Your task to perform on an android device: turn vacation reply on in the gmail app Image 0: 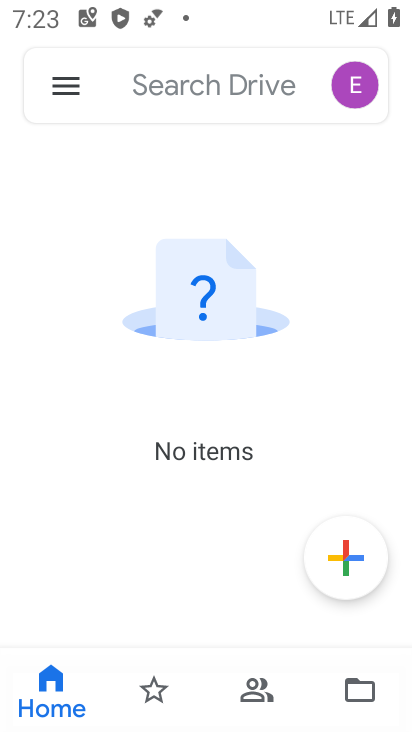
Step 0: press back button
Your task to perform on an android device: turn vacation reply on in the gmail app Image 1: 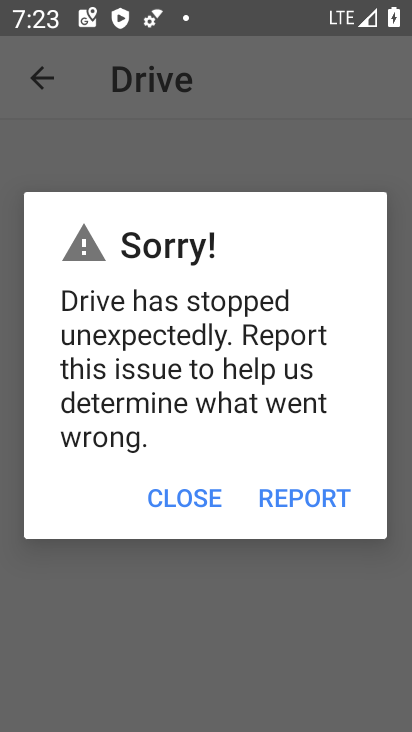
Step 1: click (188, 498)
Your task to perform on an android device: turn vacation reply on in the gmail app Image 2: 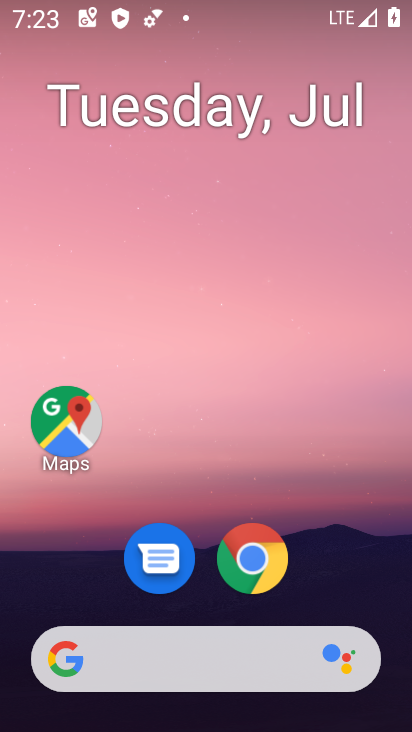
Step 2: drag from (157, 636) to (200, 20)
Your task to perform on an android device: turn vacation reply on in the gmail app Image 3: 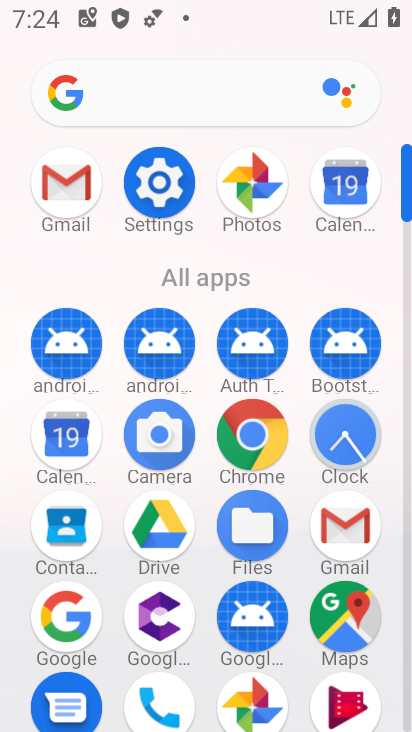
Step 3: click (41, 195)
Your task to perform on an android device: turn vacation reply on in the gmail app Image 4: 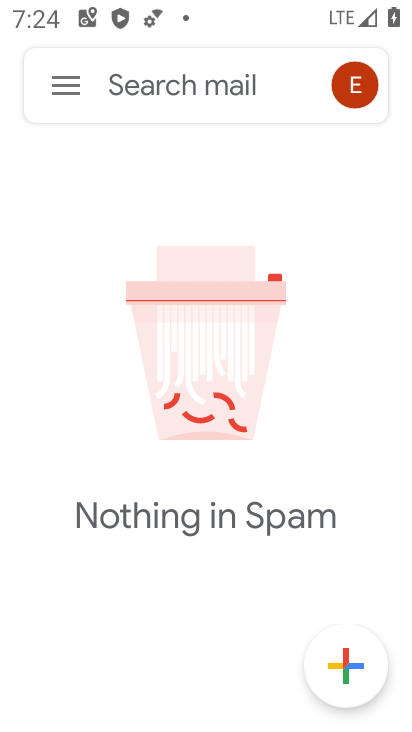
Step 4: click (57, 86)
Your task to perform on an android device: turn vacation reply on in the gmail app Image 5: 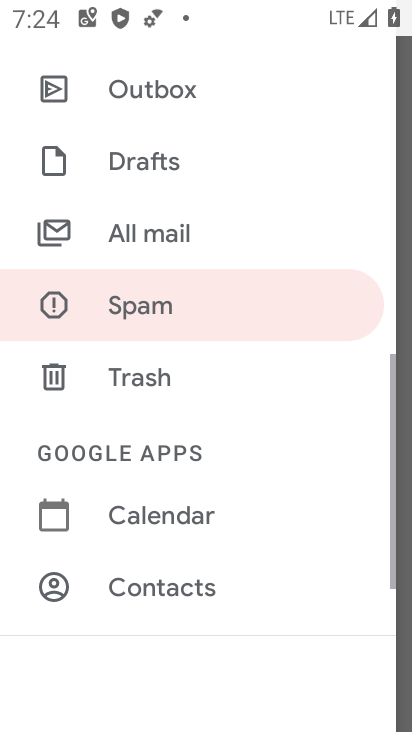
Step 5: drag from (180, 582) to (229, 24)
Your task to perform on an android device: turn vacation reply on in the gmail app Image 6: 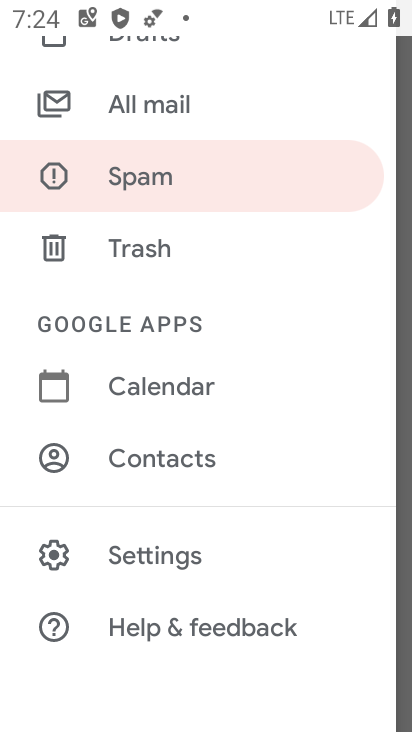
Step 6: click (156, 545)
Your task to perform on an android device: turn vacation reply on in the gmail app Image 7: 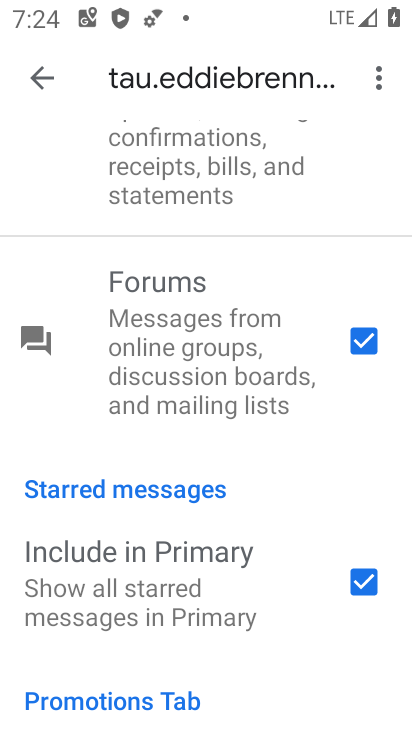
Step 7: drag from (222, 218) to (221, 692)
Your task to perform on an android device: turn vacation reply on in the gmail app Image 8: 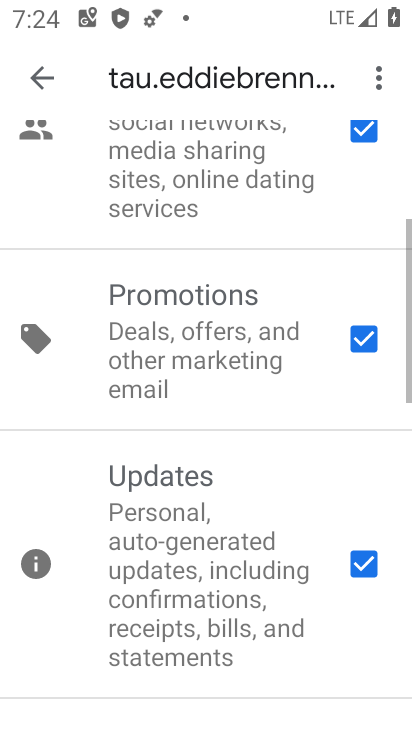
Step 8: drag from (174, 175) to (202, 712)
Your task to perform on an android device: turn vacation reply on in the gmail app Image 9: 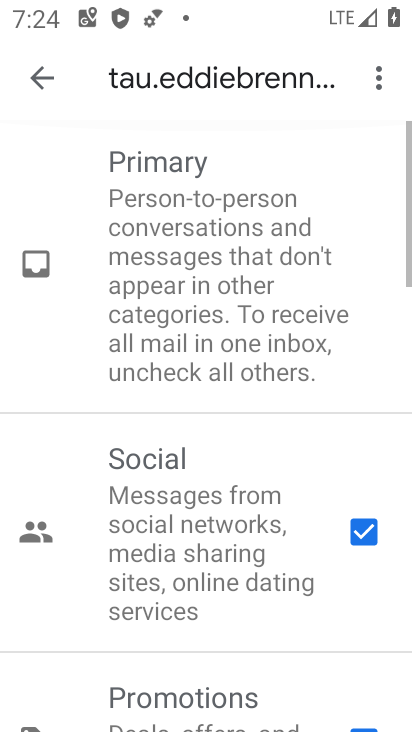
Step 9: drag from (187, 204) to (128, 723)
Your task to perform on an android device: turn vacation reply on in the gmail app Image 10: 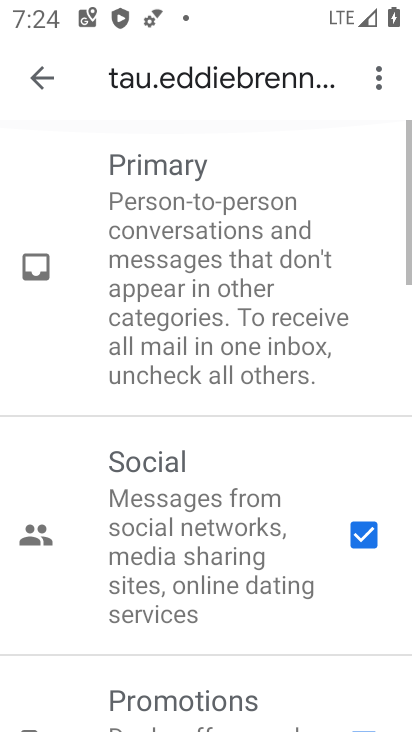
Step 10: drag from (182, 674) to (341, 1)
Your task to perform on an android device: turn vacation reply on in the gmail app Image 11: 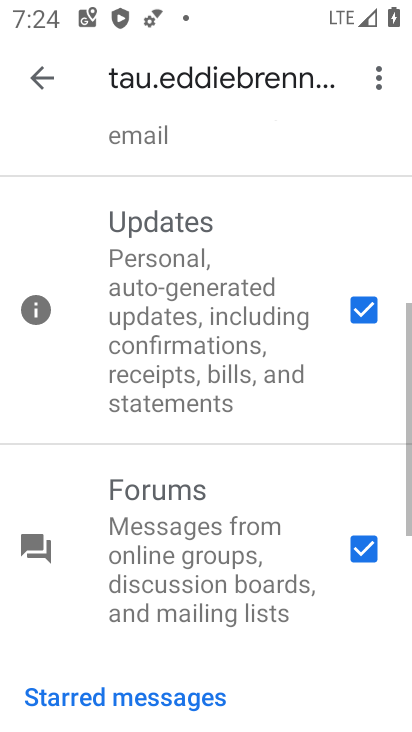
Step 11: drag from (248, 595) to (251, 1)
Your task to perform on an android device: turn vacation reply on in the gmail app Image 12: 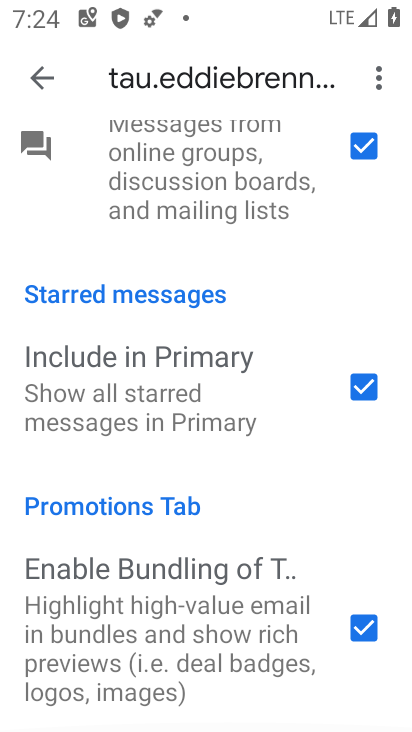
Step 12: drag from (214, 606) to (254, 36)
Your task to perform on an android device: turn vacation reply on in the gmail app Image 13: 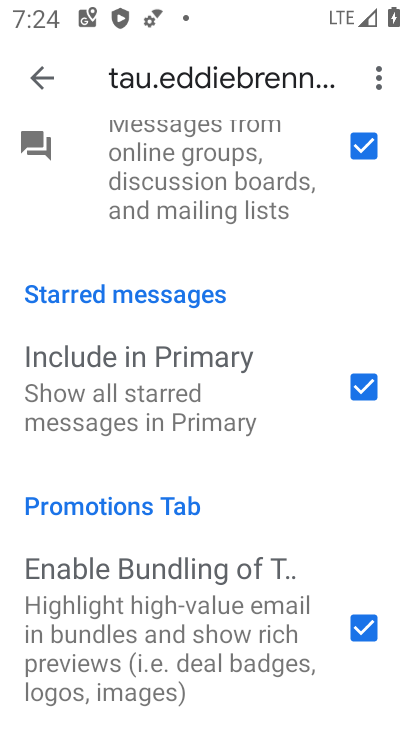
Step 13: drag from (182, 598) to (293, 15)
Your task to perform on an android device: turn vacation reply on in the gmail app Image 14: 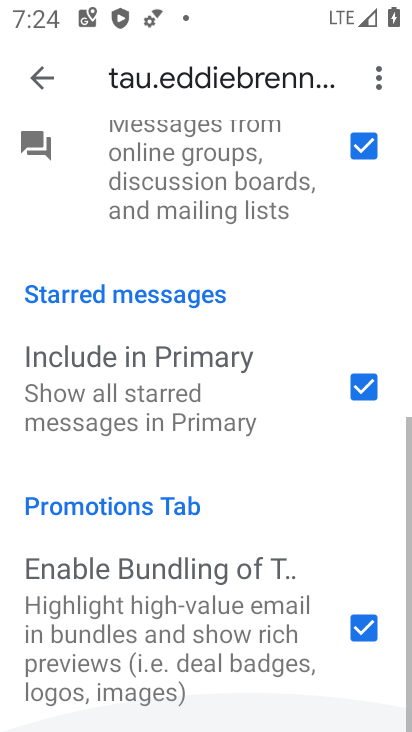
Step 14: click (59, 82)
Your task to perform on an android device: turn vacation reply on in the gmail app Image 15: 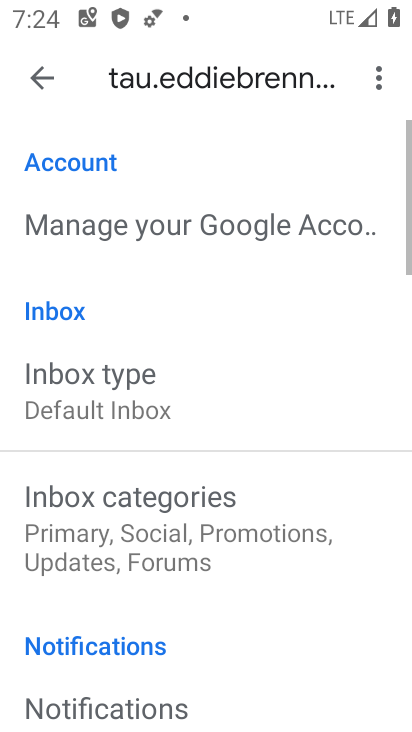
Step 15: drag from (146, 662) to (279, 3)
Your task to perform on an android device: turn vacation reply on in the gmail app Image 16: 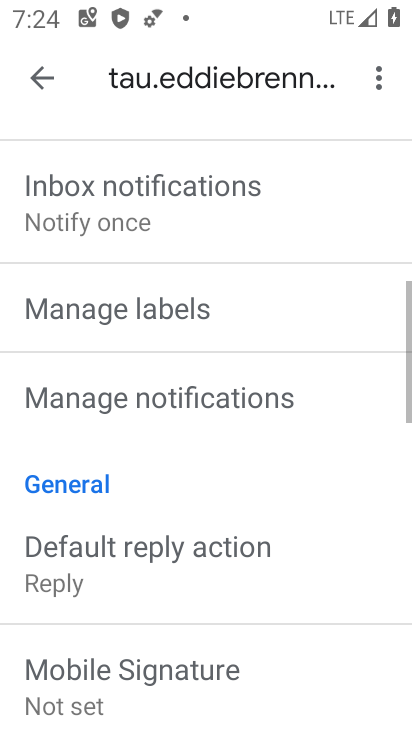
Step 16: drag from (221, 679) to (256, 159)
Your task to perform on an android device: turn vacation reply on in the gmail app Image 17: 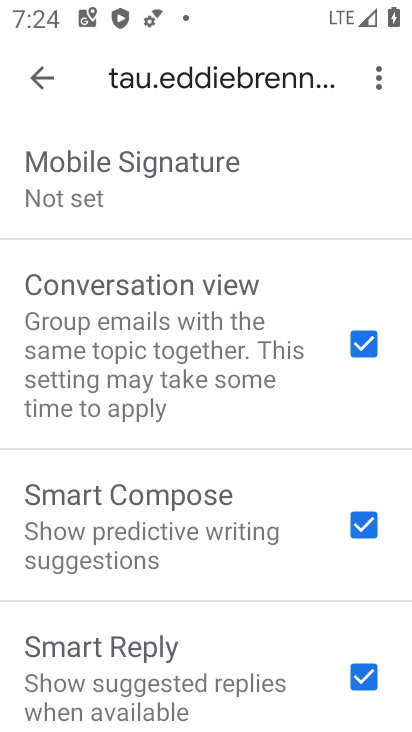
Step 17: drag from (201, 665) to (256, 27)
Your task to perform on an android device: turn vacation reply on in the gmail app Image 18: 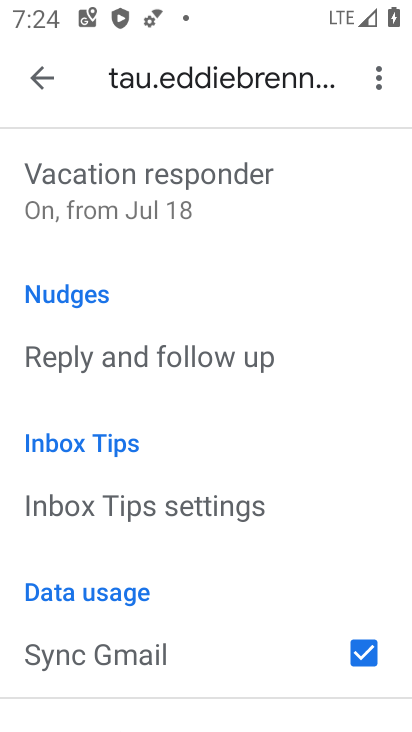
Step 18: click (126, 185)
Your task to perform on an android device: turn vacation reply on in the gmail app Image 19: 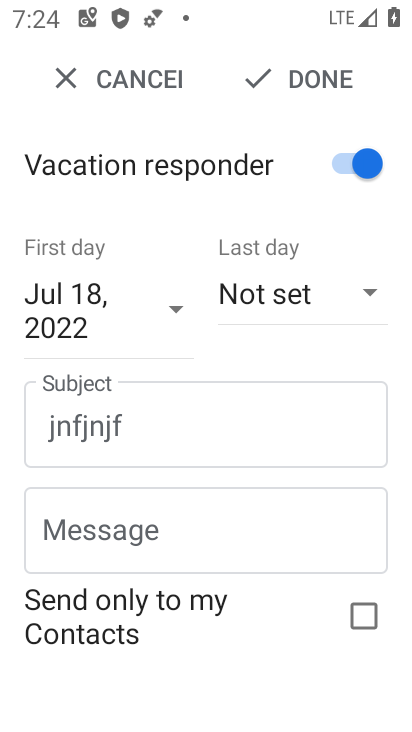
Step 19: task complete